Your task to perform on an android device: Go to accessibility settings Image 0: 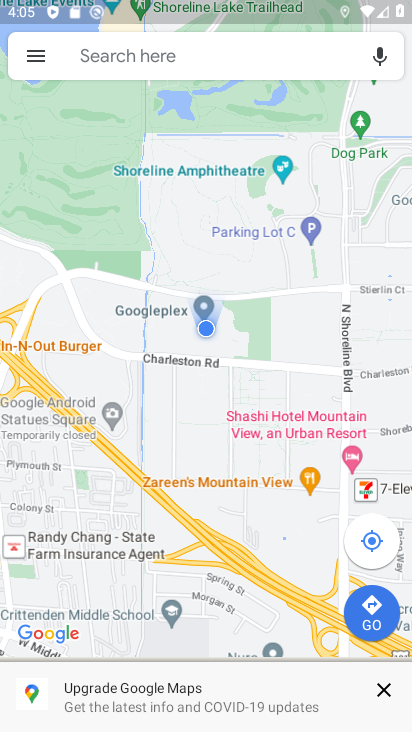
Step 0: press back button
Your task to perform on an android device: Go to accessibility settings Image 1: 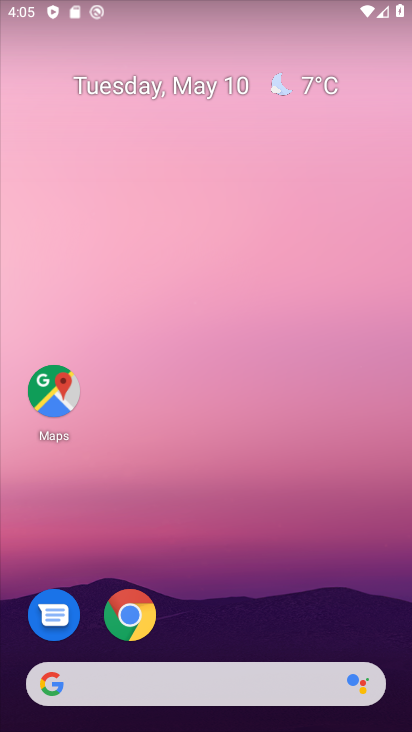
Step 1: drag from (225, 520) to (220, 47)
Your task to perform on an android device: Go to accessibility settings Image 2: 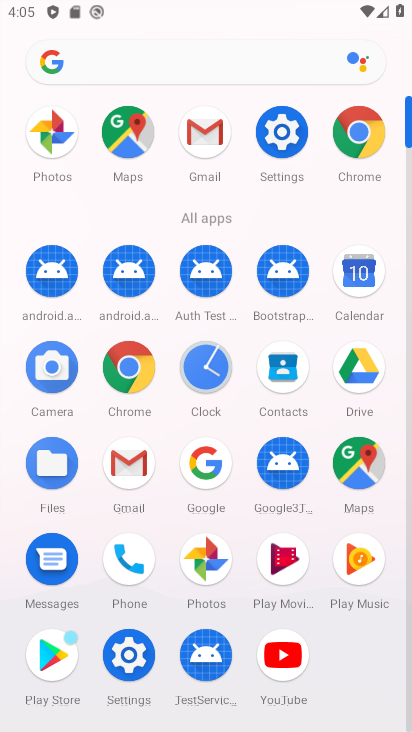
Step 2: click (279, 129)
Your task to perform on an android device: Go to accessibility settings Image 3: 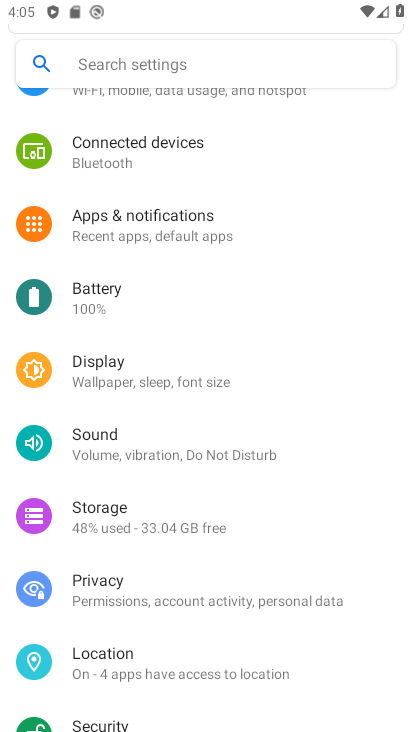
Step 3: drag from (295, 571) to (282, 124)
Your task to perform on an android device: Go to accessibility settings Image 4: 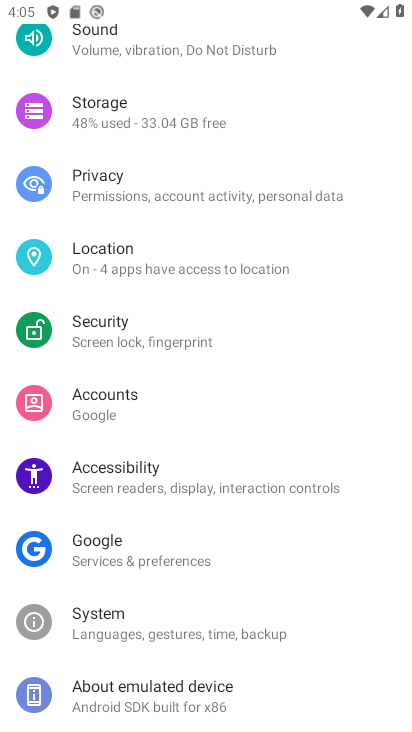
Step 4: drag from (232, 589) to (185, 84)
Your task to perform on an android device: Go to accessibility settings Image 5: 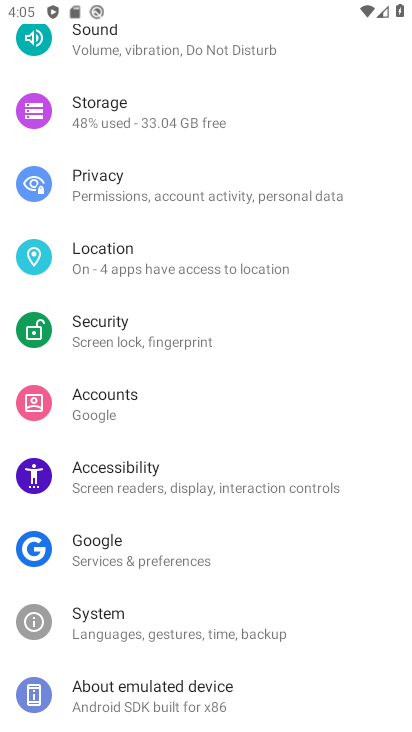
Step 5: click (126, 488)
Your task to perform on an android device: Go to accessibility settings Image 6: 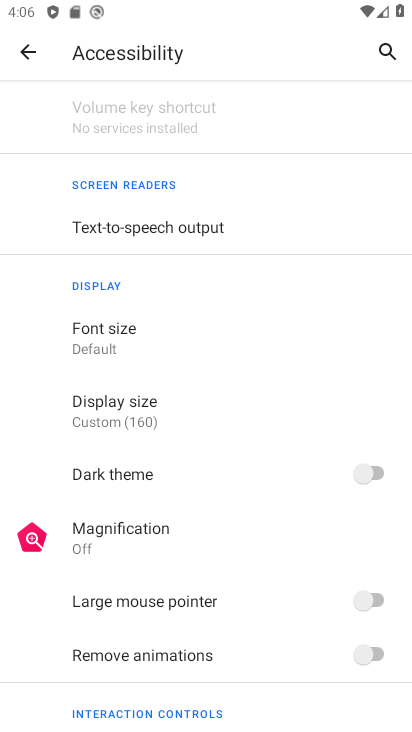
Step 6: task complete